Your task to perform on an android device: What is the recent news? Image 0: 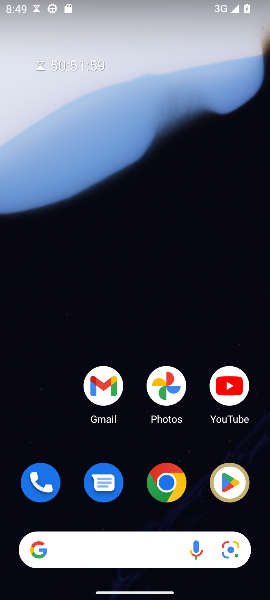
Step 0: drag from (136, 523) to (11, 205)
Your task to perform on an android device: What is the recent news? Image 1: 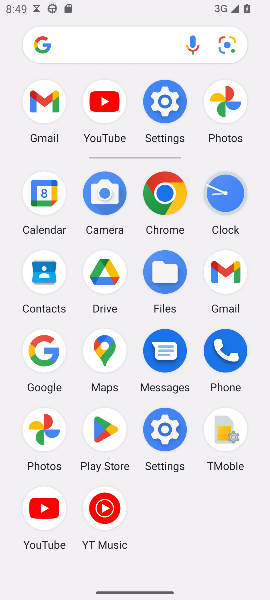
Step 1: click (175, 192)
Your task to perform on an android device: What is the recent news? Image 2: 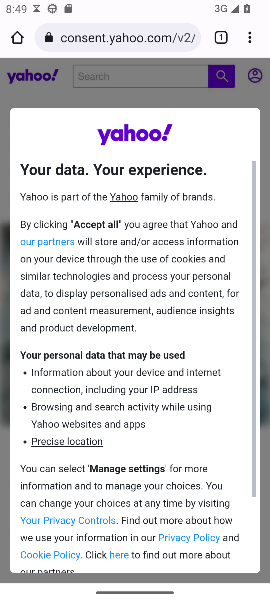
Step 2: task complete